Your task to perform on an android device: check android version Image 0: 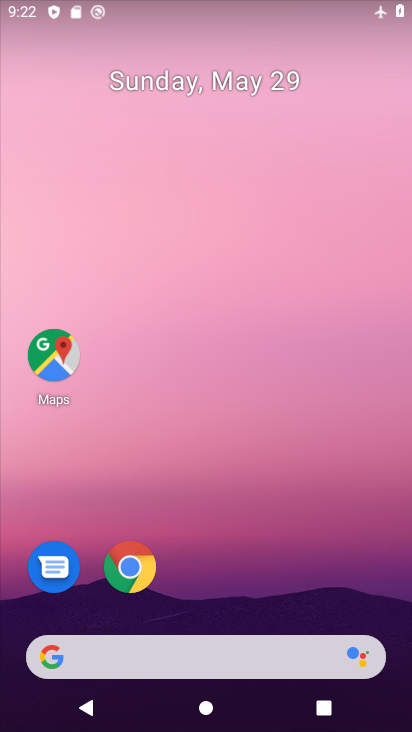
Step 0: drag from (395, 605) to (397, 112)
Your task to perform on an android device: check android version Image 1: 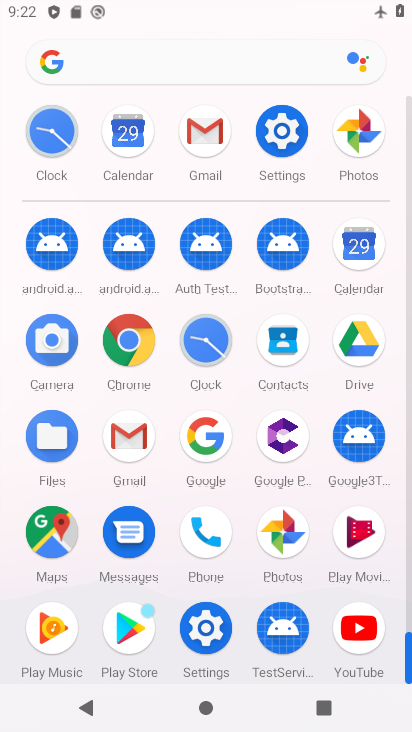
Step 1: click (208, 630)
Your task to perform on an android device: check android version Image 2: 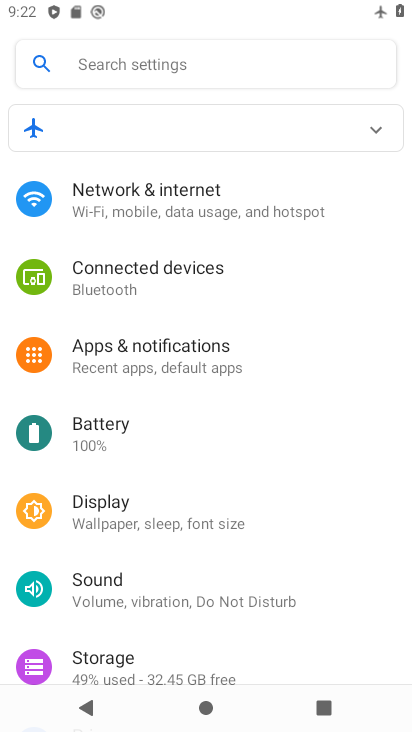
Step 2: drag from (301, 611) to (306, 177)
Your task to perform on an android device: check android version Image 3: 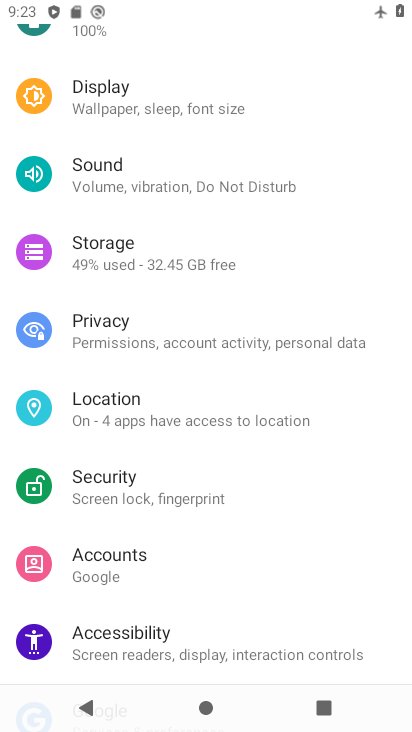
Step 3: drag from (251, 616) to (311, 194)
Your task to perform on an android device: check android version Image 4: 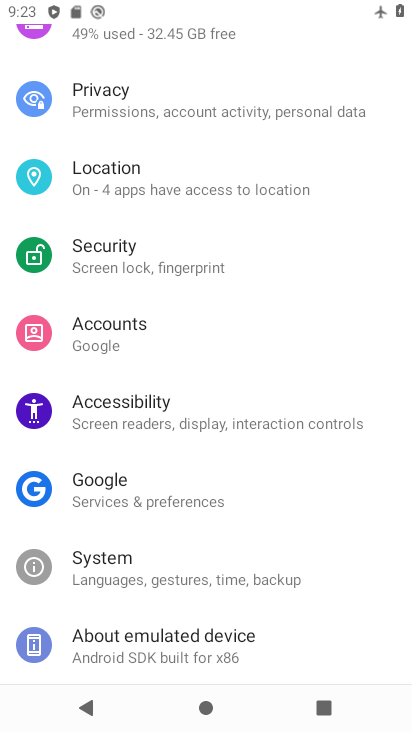
Step 4: click (154, 628)
Your task to perform on an android device: check android version Image 5: 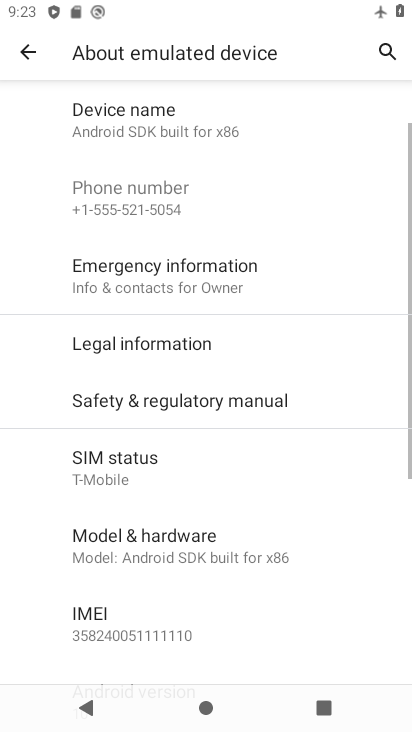
Step 5: drag from (269, 487) to (272, 94)
Your task to perform on an android device: check android version Image 6: 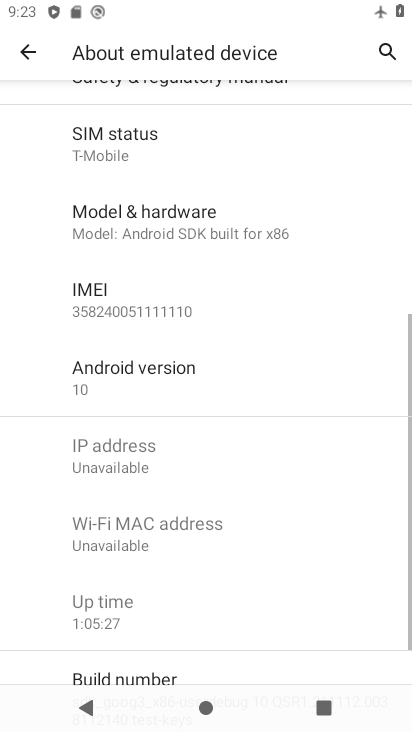
Step 6: click (150, 360)
Your task to perform on an android device: check android version Image 7: 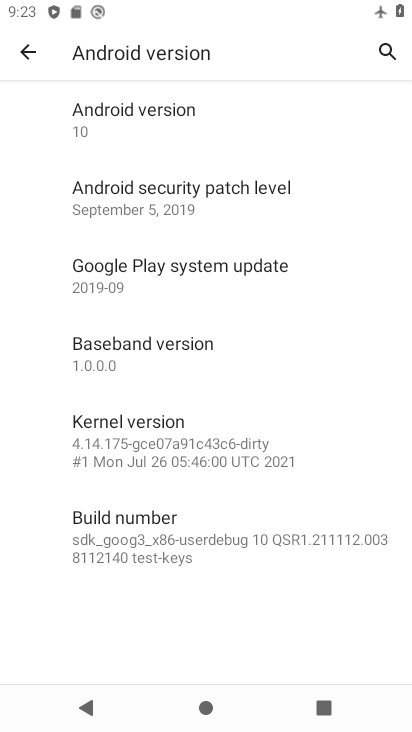
Step 7: click (137, 112)
Your task to perform on an android device: check android version Image 8: 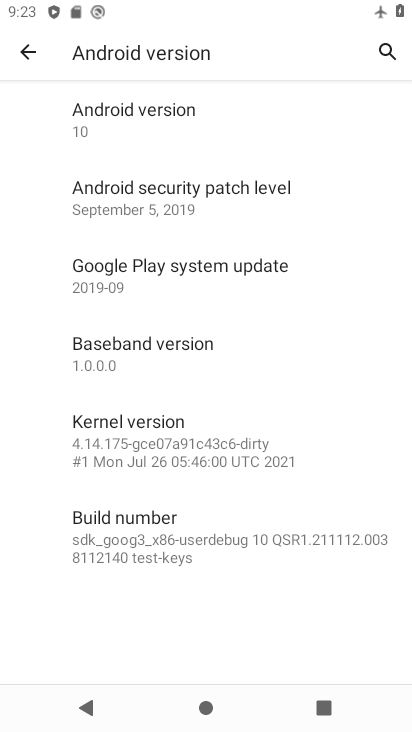
Step 8: task complete